Your task to perform on an android device: Open settings on Google Maps Image 0: 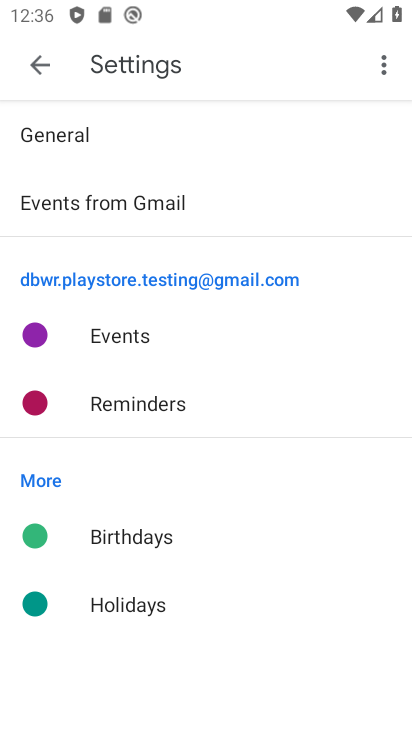
Step 0: press home button
Your task to perform on an android device: Open settings on Google Maps Image 1: 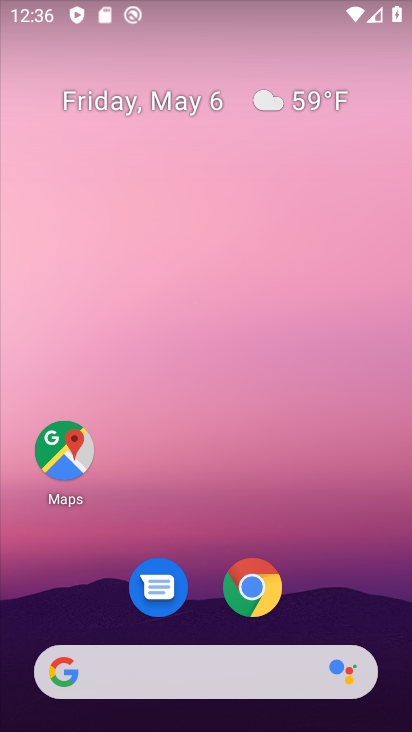
Step 1: drag from (238, 684) to (226, 123)
Your task to perform on an android device: Open settings on Google Maps Image 2: 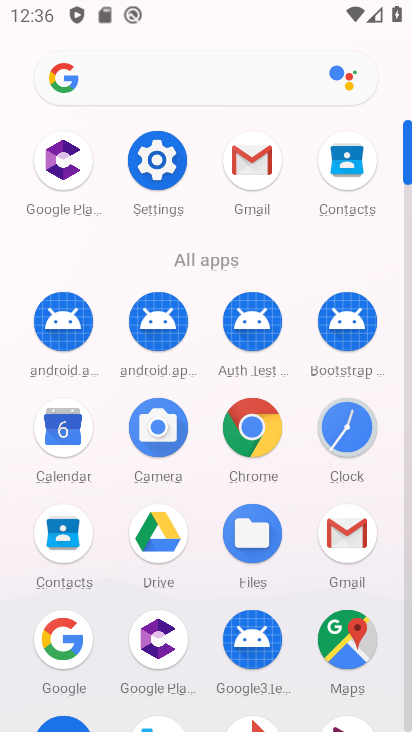
Step 2: drag from (270, 555) to (255, 358)
Your task to perform on an android device: Open settings on Google Maps Image 3: 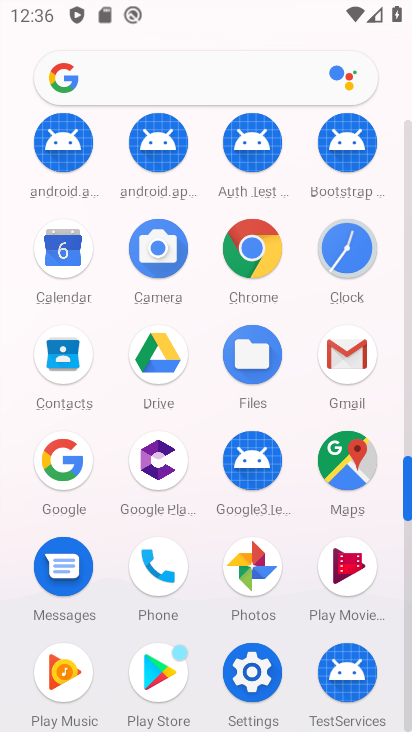
Step 3: click (362, 463)
Your task to perform on an android device: Open settings on Google Maps Image 4: 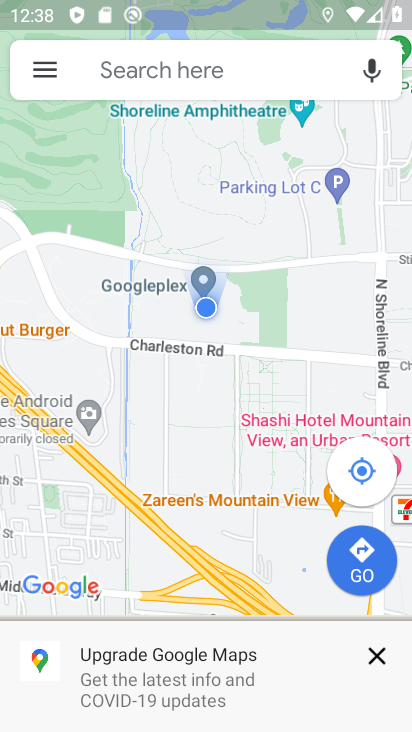
Step 4: click (57, 75)
Your task to perform on an android device: Open settings on Google Maps Image 5: 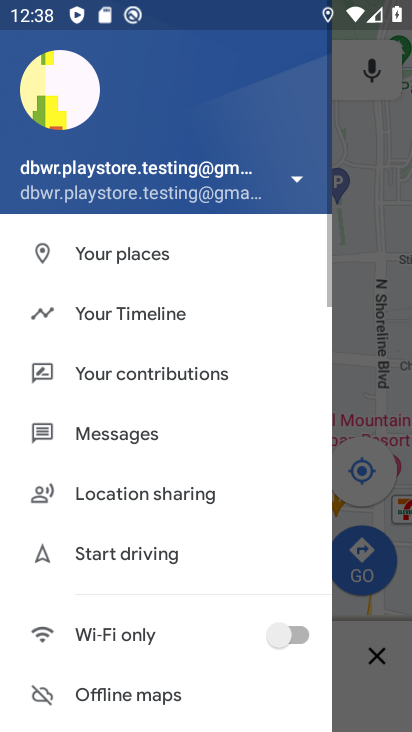
Step 5: drag from (156, 645) to (110, 252)
Your task to perform on an android device: Open settings on Google Maps Image 6: 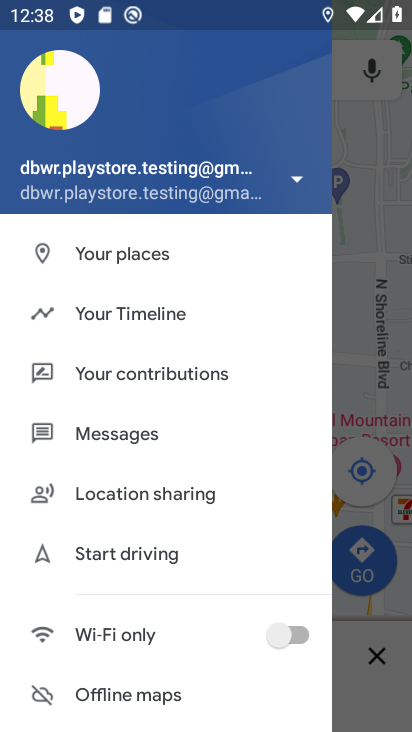
Step 6: drag from (103, 499) to (68, 131)
Your task to perform on an android device: Open settings on Google Maps Image 7: 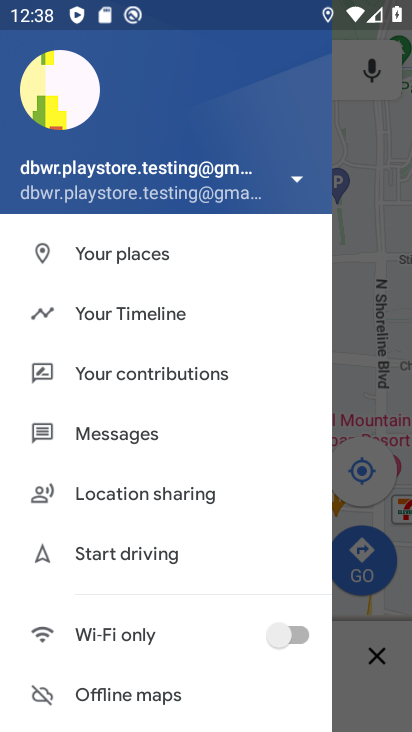
Step 7: drag from (124, 564) to (228, 89)
Your task to perform on an android device: Open settings on Google Maps Image 8: 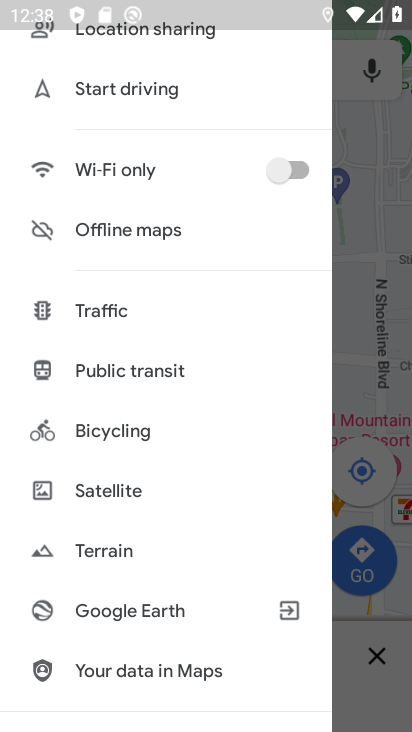
Step 8: drag from (50, 463) to (154, 11)
Your task to perform on an android device: Open settings on Google Maps Image 9: 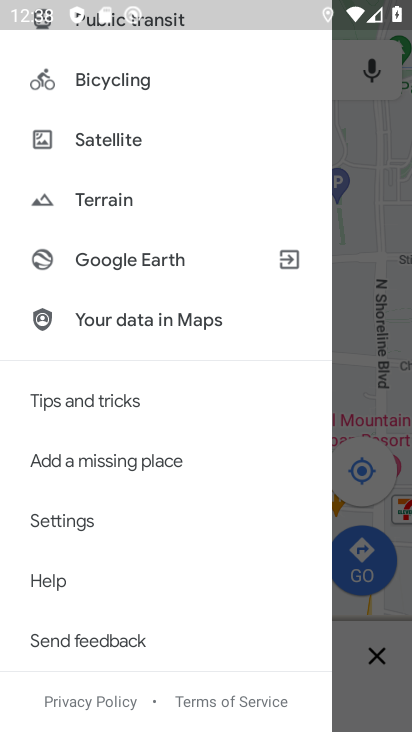
Step 9: click (93, 518)
Your task to perform on an android device: Open settings on Google Maps Image 10: 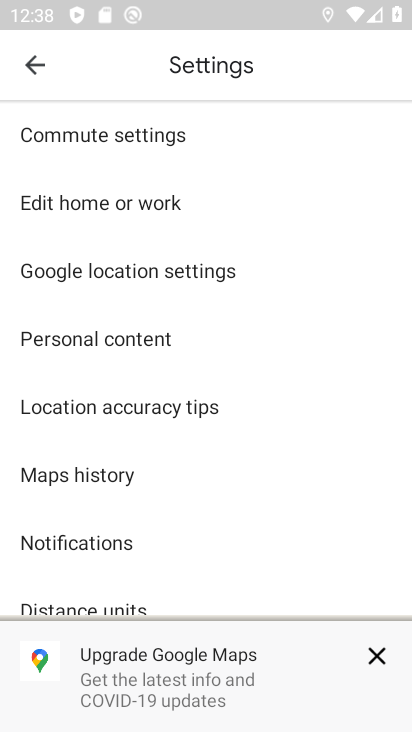
Step 10: click (374, 657)
Your task to perform on an android device: Open settings on Google Maps Image 11: 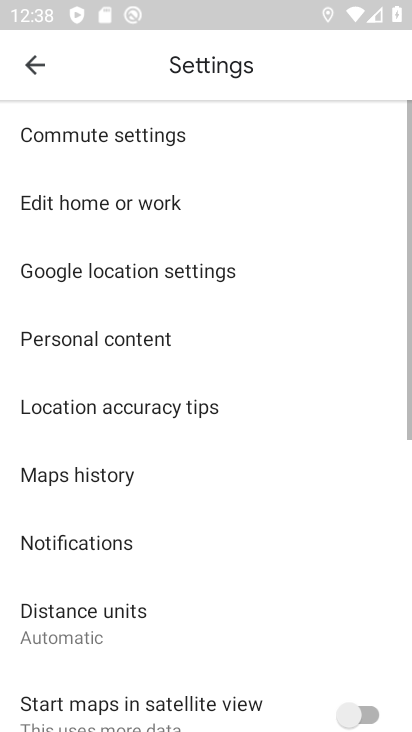
Step 11: task complete